Your task to perform on an android device: allow notifications from all sites in the chrome app Image 0: 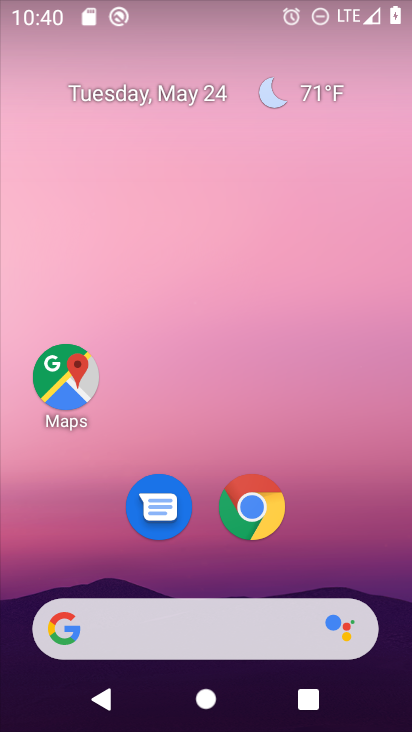
Step 0: click (257, 512)
Your task to perform on an android device: allow notifications from all sites in the chrome app Image 1: 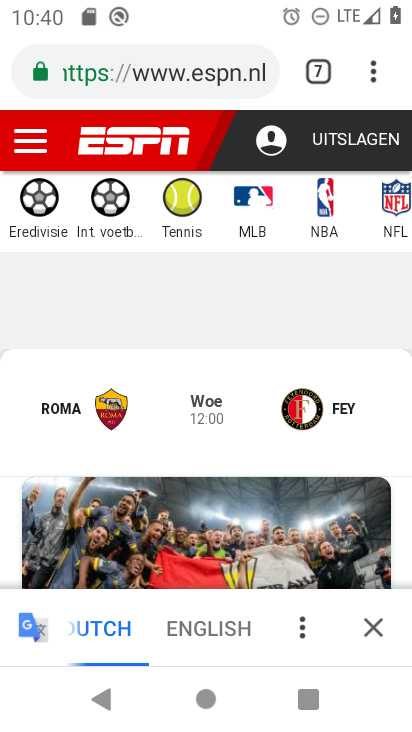
Step 1: click (375, 76)
Your task to perform on an android device: allow notifications from all sites in the chrome app Image 2: 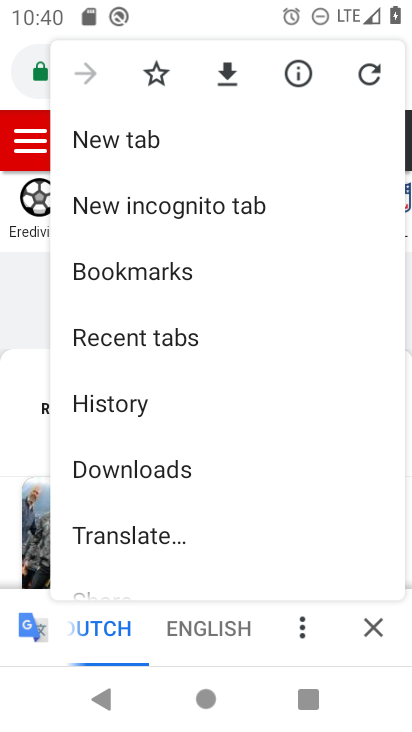
Step 2: drag from (141, 554) to (133, 140)
Your task to perform on an android device: allow notifications from all sites in the chrome app Image 3: 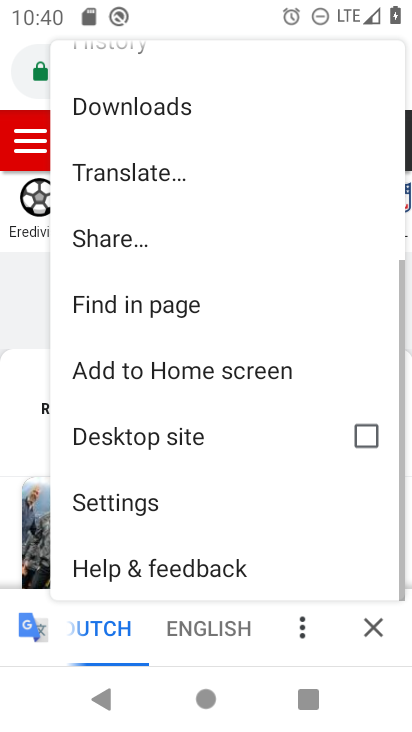
Step 3: click (135, 500)
Your task to perform on an android device: allow notifications from all sites in the chrome app Image 4: 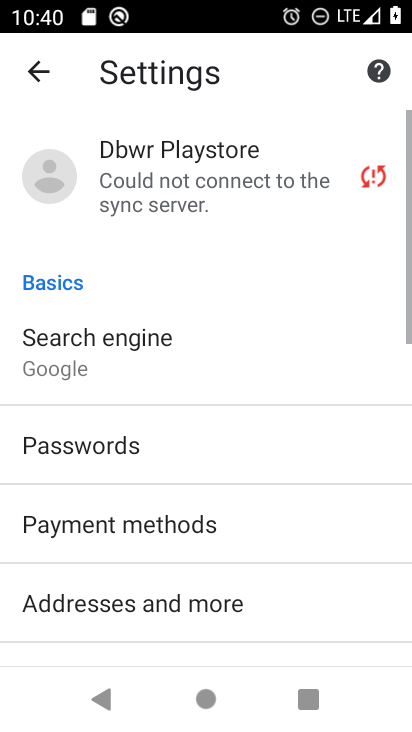
Step 4: drag from (178, 554) to (182, 225)
Your task to perform on an android device: allow notifications from all sites in the chrome app Image 5: 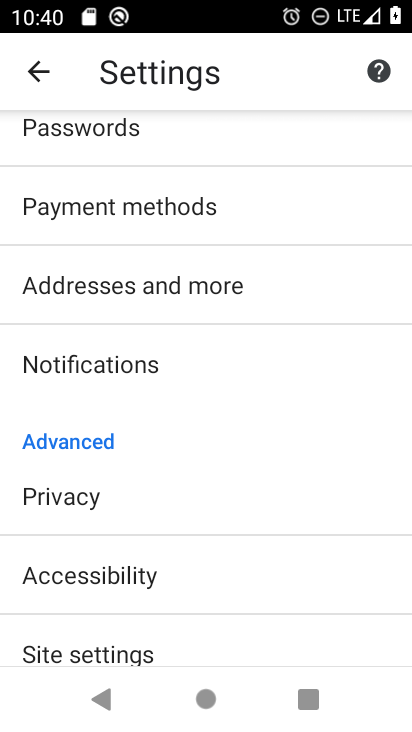
Step 5: drag from (124, 607) to (118, 364)
Your task to perform on an android device: allow notifications from all sites in the chrome app Image 6: 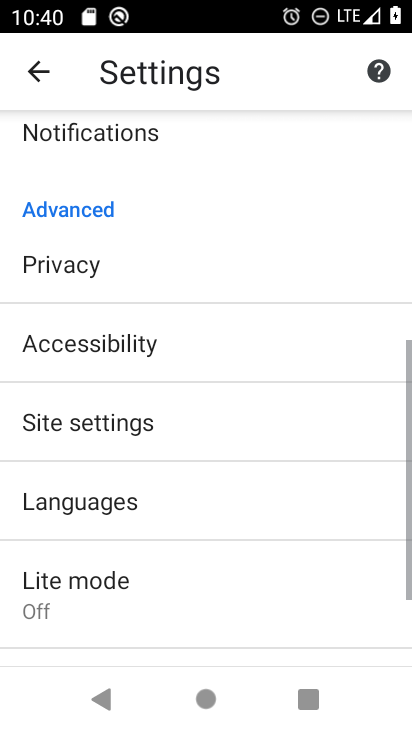
Step 6: click (89, 421)
Your task to perform on an android device: allow notifications from all sites in the chrome app Image 7: 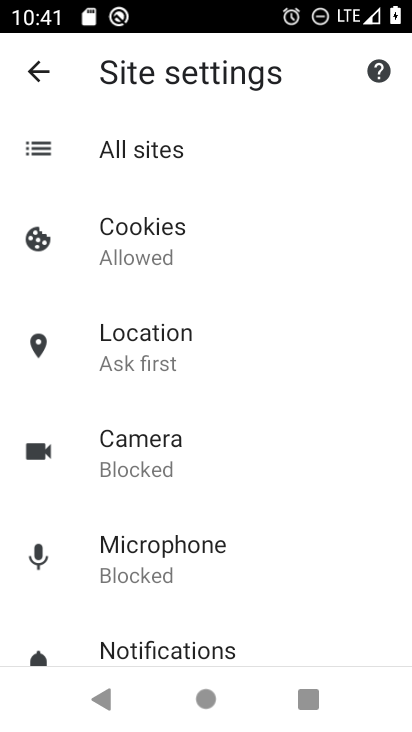
Step 7: click (151, 650)
Your task to perform on an android device: allow notifications from all sites in the chrome app Image 8: 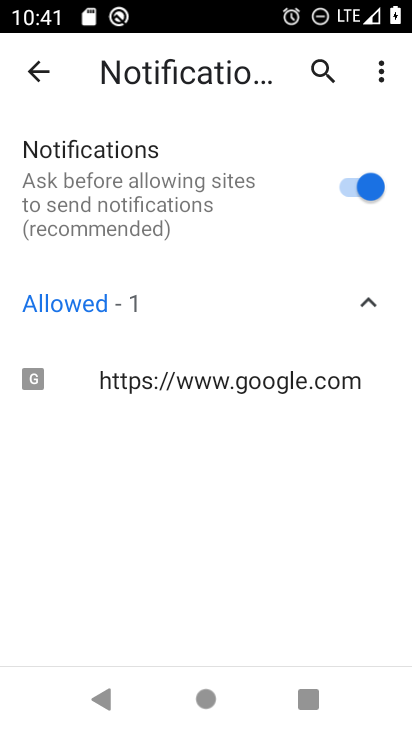
Step 8: task complete